Your task to perform on an android device: toggle pop-ups in chrome Image 0: 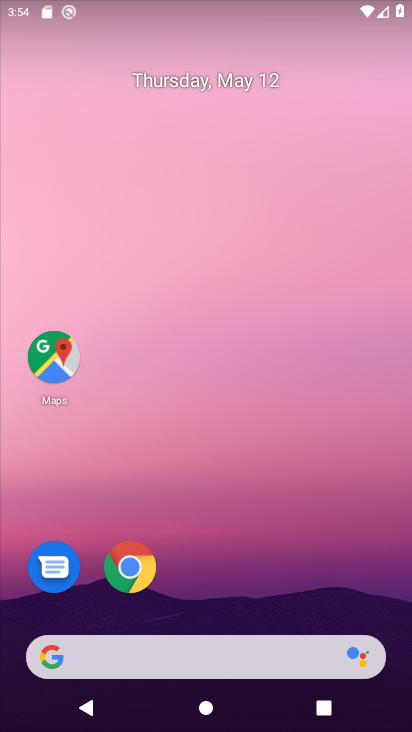
Step 0: drag from (260, 687) to (302, 287)
Your task to perform on an android device: toggle pop-ups in chrome Image 1: 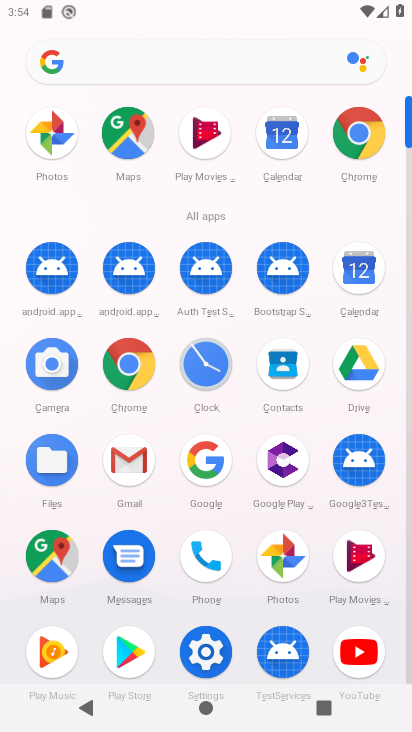
Step 1: click (362, 137)
Your task to perform on an android device: toggle pop-ups in chrome Image 2: 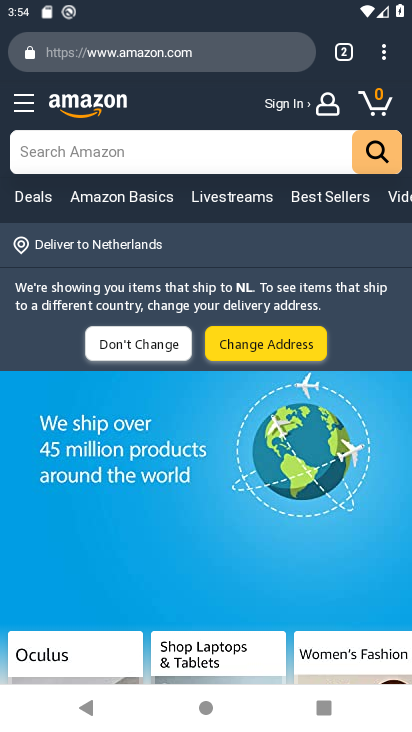
Step 2: click (382, 65)
Your task to perform on an android device: toggle pop-ups in chrome Image 3: 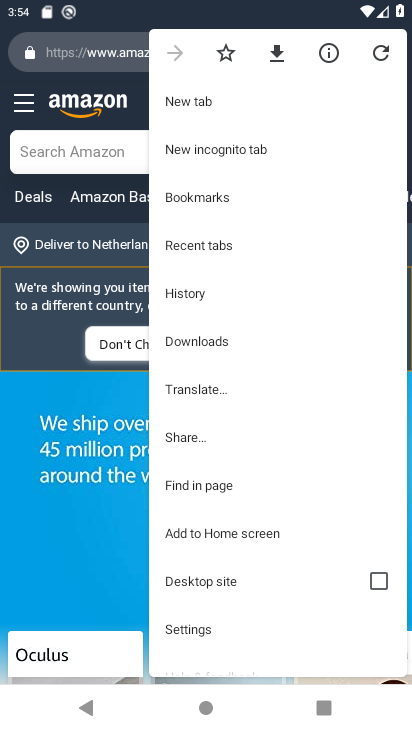
Step 3: click (193, 625)
Your task to perform on an android device: toggle pop-ups in chrome Image 4: 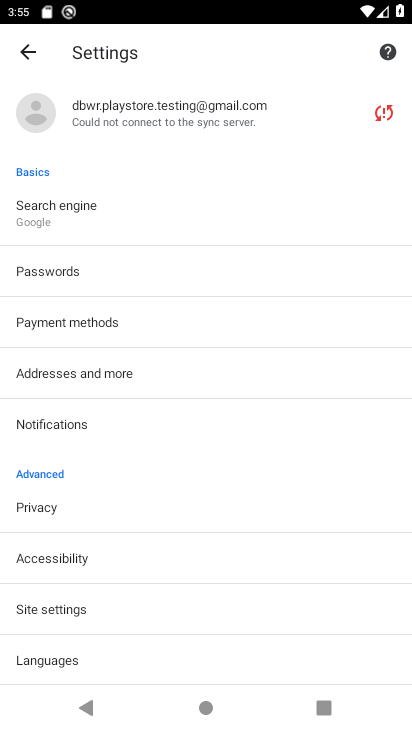
Step 4: click (105, 611)
Your task to perform on an android device: toggle pop-ups in chrome Image 5: 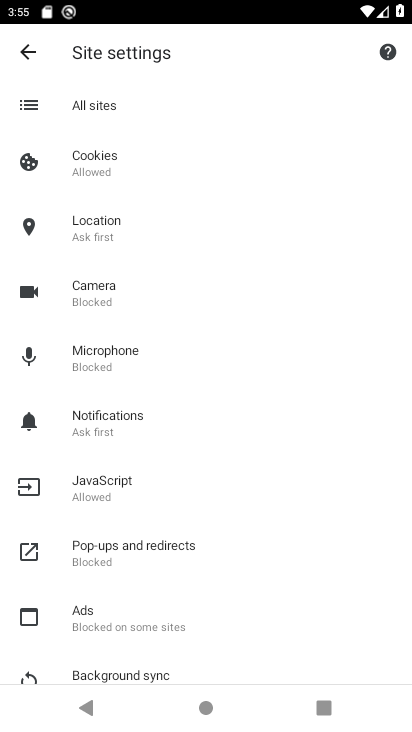
Step 5: click (133, 543)
Your task to perform on an android device: toggle pop-ups in chrome Image 6: 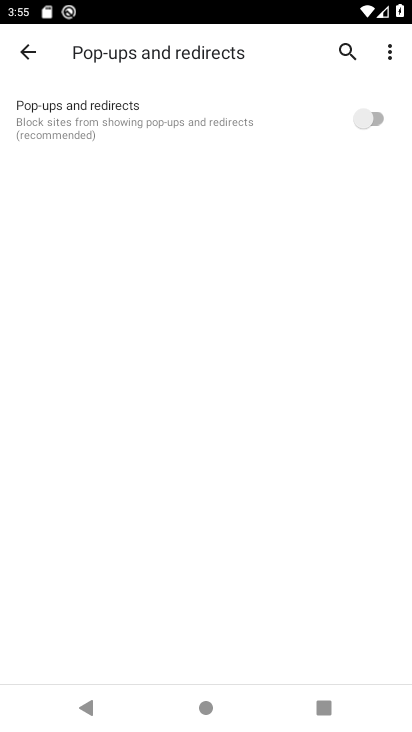
Step 6: click (362, 128)
Your task to perform on an android device: toggle pop-ups in chrome Image 7: 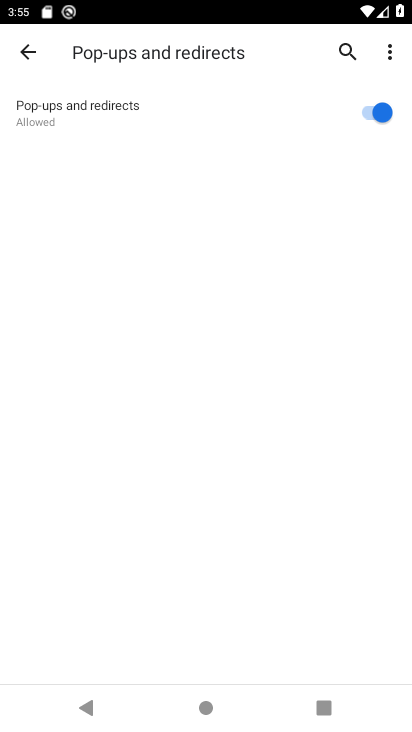
Step 7: task complete